Your task to perform on an android device: Set the phone to "Do not disturb". Image 0: 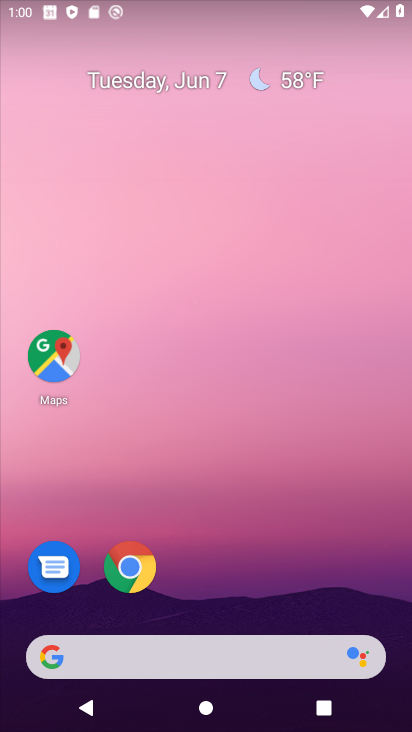
Step 0: drag from (394, 698) to (358, 155)
Your task to perform on an android device: Set the phone to "Do not disturb". Image 1: 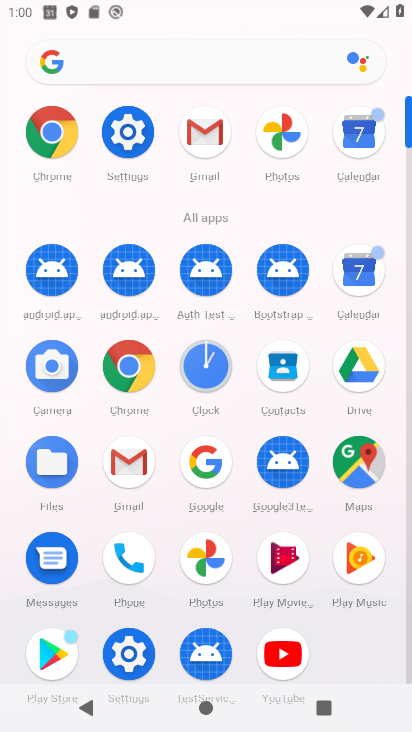
Step 1: click (131, 656)
Your task to perform on an android device: Set the phone to "Do not disturb". Image 2: 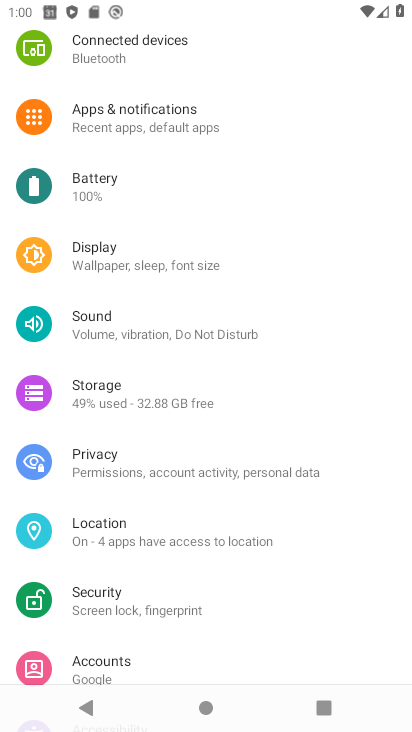
Step 2: drag from (259, 627) to (283, 236)
Your task to perform on an android device: Set the phone to "Do not disturb". Image 3: 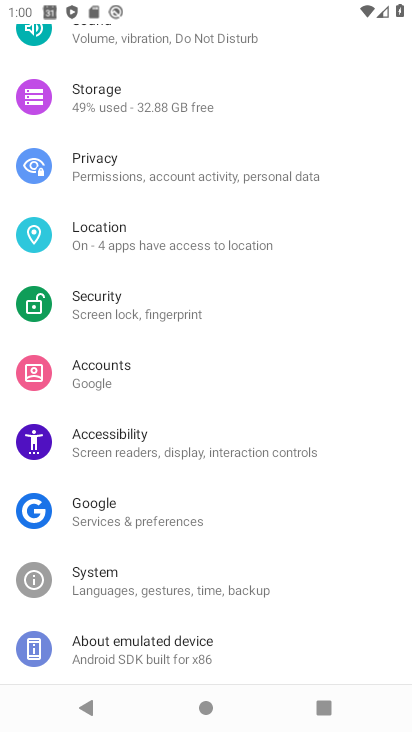
Step 3: drag from (313, 536) to (319, 257)
Your task to perform on an android device: Set the phone to "Do not disturb". Image 4: 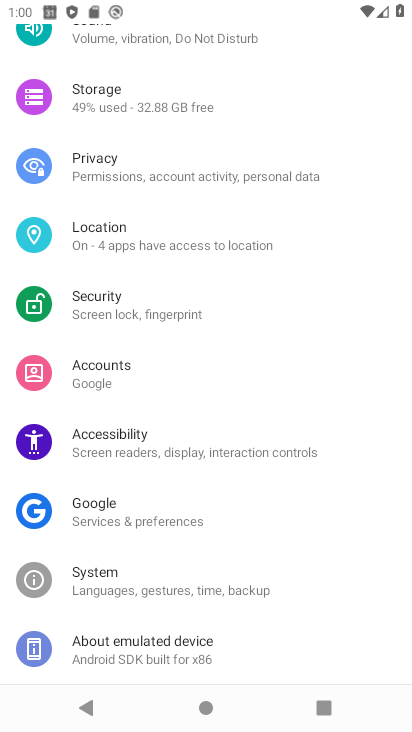
Step 4: drag from (272, 91) to (321, 618)
Your task to perform on an android device: Set the phone to "Do not disturb". Image 5: 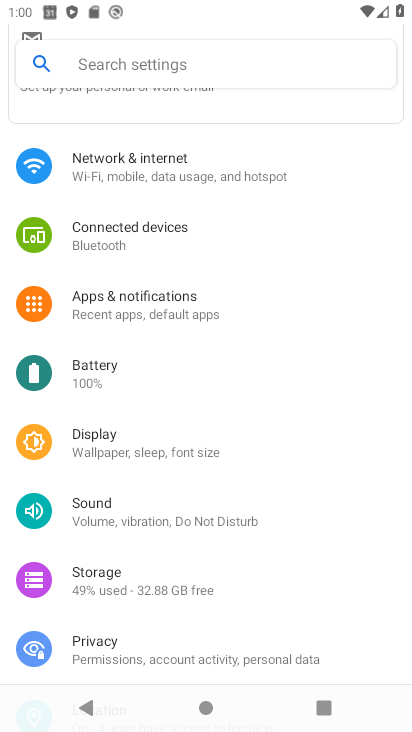
Step 5: click (105, 515)
Your task to perform on an android device: Set the phone to "Do not disturb". Image 6: 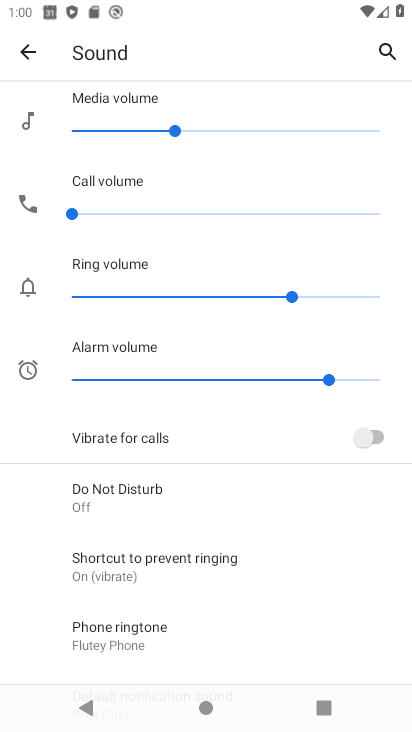
Step 6: drag from (250, 594) to (258, 238)
Your task to perform on an android device: Set the phone to "Do not disturb". Image 7: 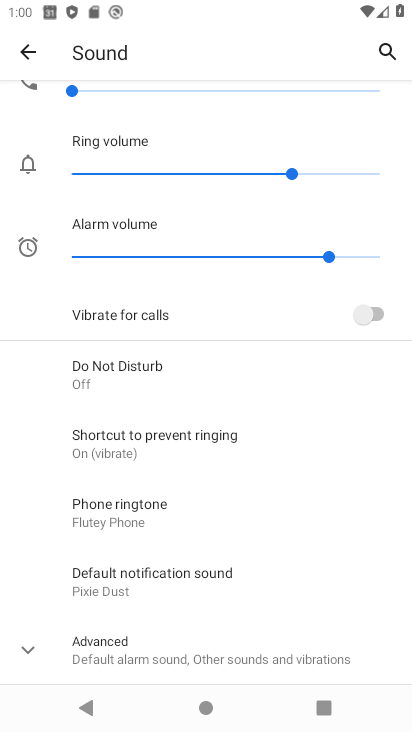
Step 7: click (117, 370)
Your task to perform on an android device: Set the phone to "Do not disturb". Image 8: 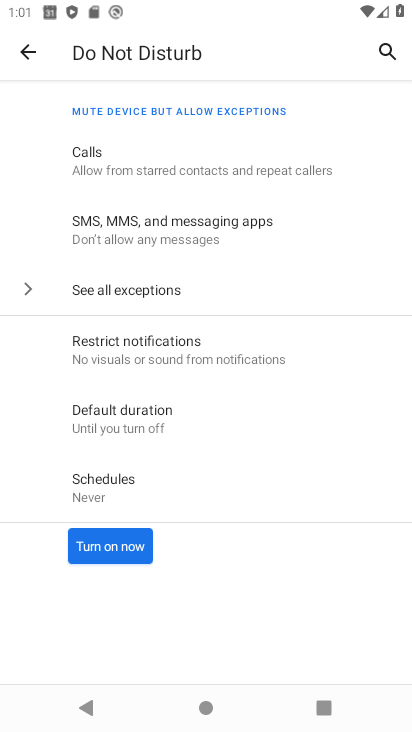
Step 8: click (100, 544)
Your task to perform on an android device: Set the phone to "Do not disturb". Image 9: 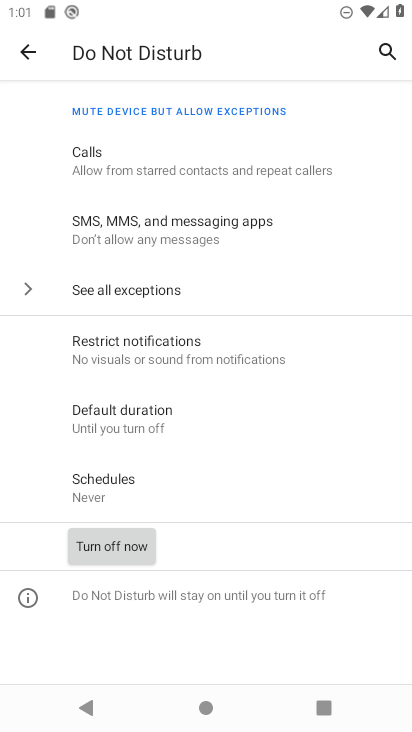
Step 9: task complete